Your task to perform on an android device: Find coffee shops on Maps Image 0: 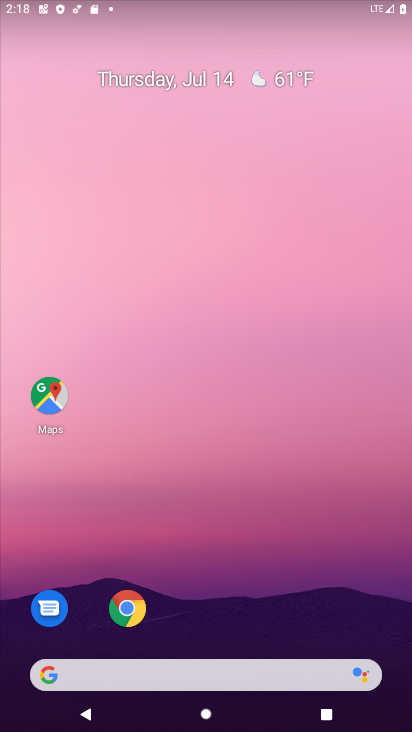
Step 0: click (51, 390)
Your task to perform on an android device: Find coffee shops on Maps Image 1: 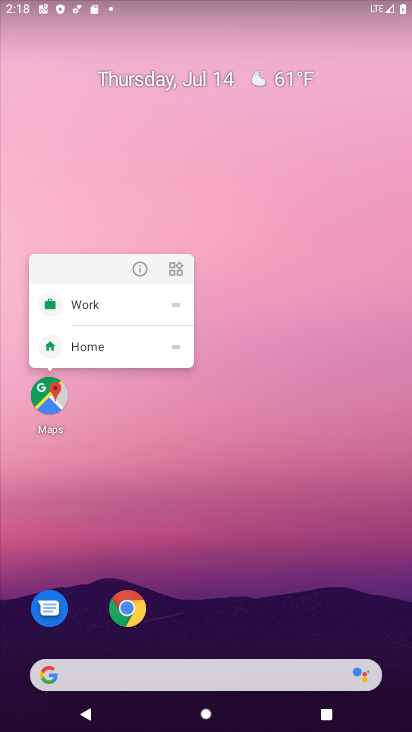
Step 1: click (51, 390)
Your task to perform on an android device: Find coffee shops on Maps Image 2: 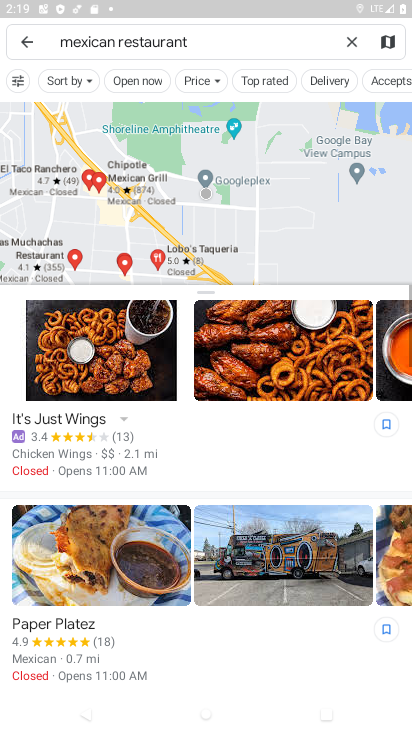
Step 2: click (349, 45)
Your task to perform on an android device: Find coffee shops on Maps Image 3: 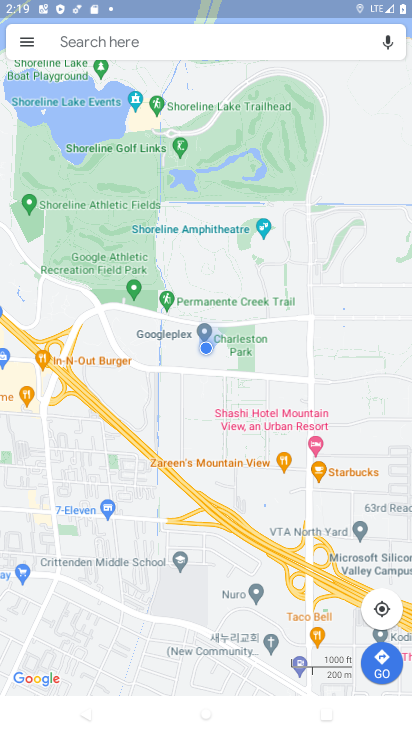
Step 3: click (188, 46)
Your task to perform on an android device: Find coffee shops on Maps Image 4: 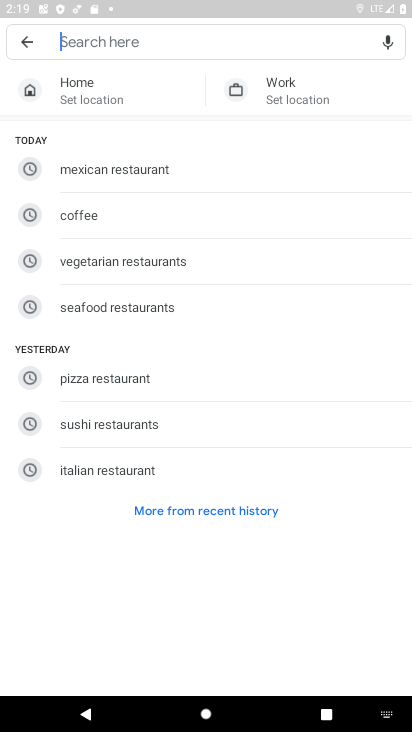
Step 4: click (105, 215)
Your task to perform on an android device: Find coffee shops on Maps Image 5: 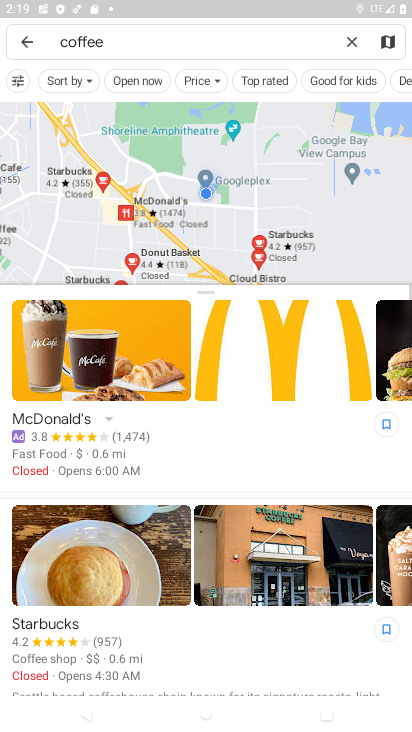
Step 5: task complete